Your task to perform on an android device: Go to sound settings Image 0: 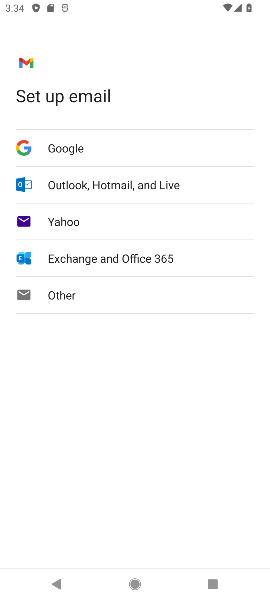
Step 0: press back button
Your task to perform on an android device: Go to sound settings Image 1: 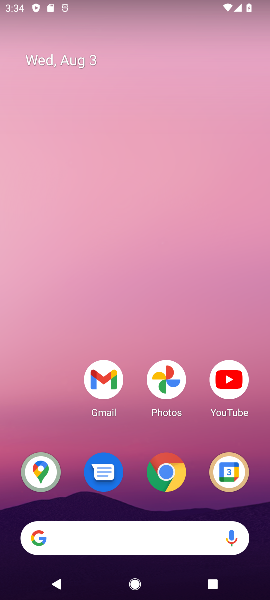
Step 1: drag from (47, 442) to (109, 60)
Your task to perform on an android device: Go to sound settings Image 2: 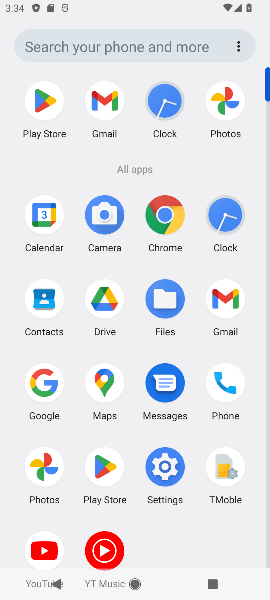
Step 2: click (171, 476)
Your task to perform on an android device: Go to sound settings Image 3: 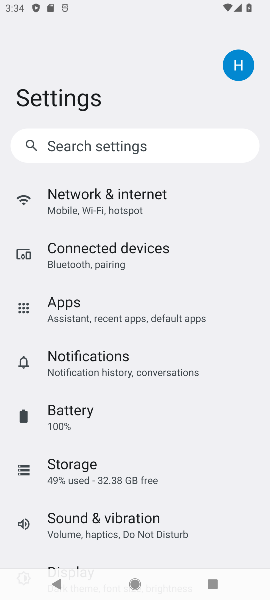
Step 3: drag from (147, 477) to (204, 88)
Your task to perform on an android device: Go to sound settings Image 4: 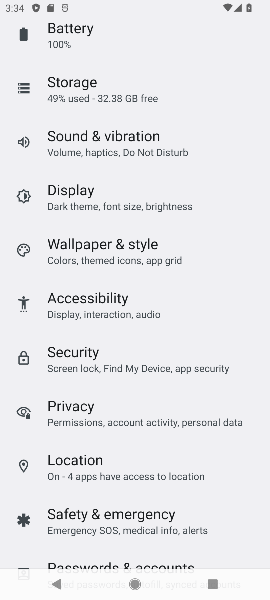
Step 4: click (99, 135)
Your task to perform on an android device: Go to sound settings Image 5: 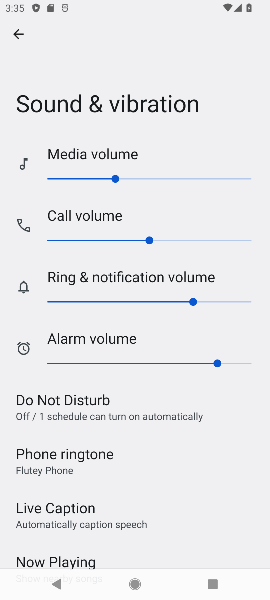
Step 5: task complete